Your task to perform on an android device: turn off improve location accuracy Image 0: 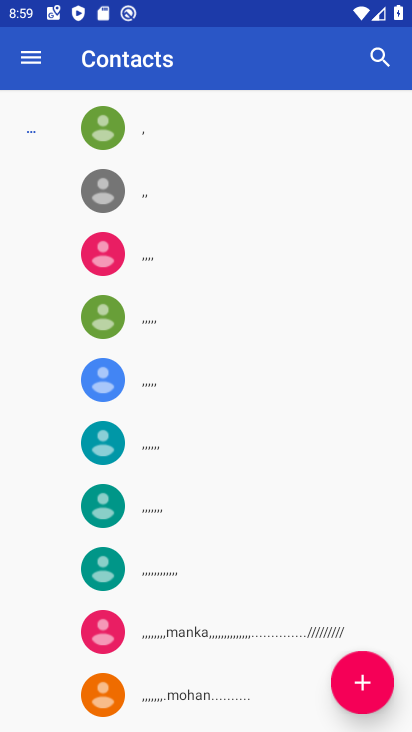
Step 0: press home button
Your task to perform on an android device: turn off improve location accuracy Image 1: 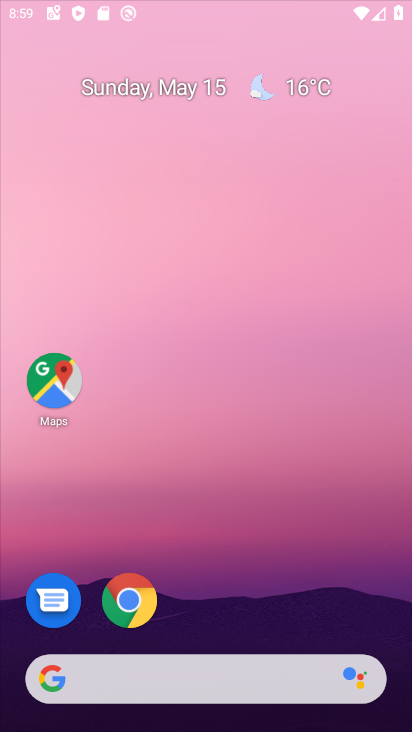
Step 1: drag from (241, 438) to (253, 49)
Your task to perform on an android device: turn off improve location accuracy Image 2: 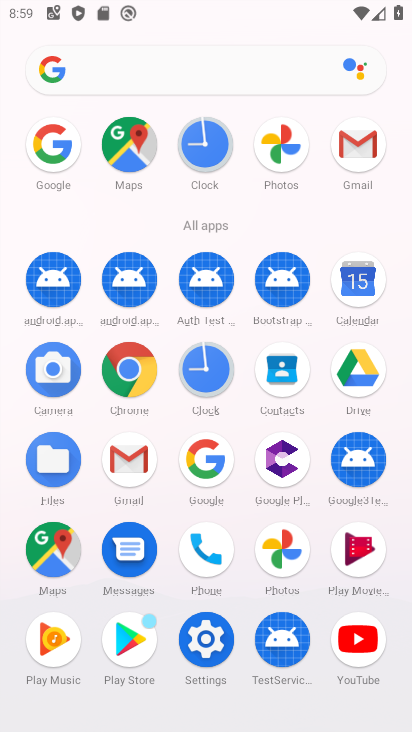
Step 2: click (200, 638)
Your task to perform on an android device: turn off improve location accuracy Image 3: 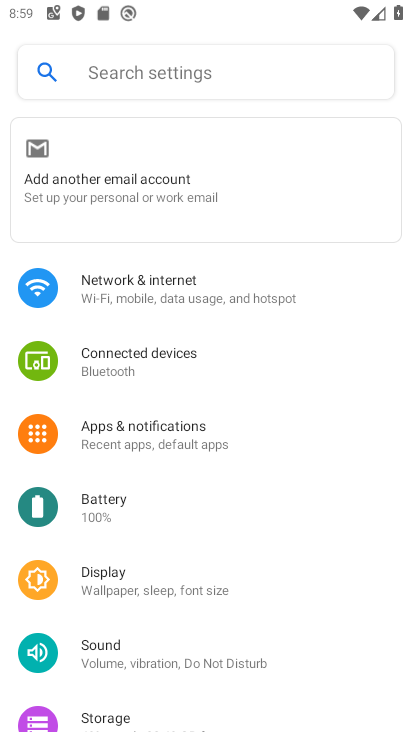
Step 3: drag from (78, 691) to (146, 501)
Your task to perform on an android device: turn off improve location accuracy Image 4: 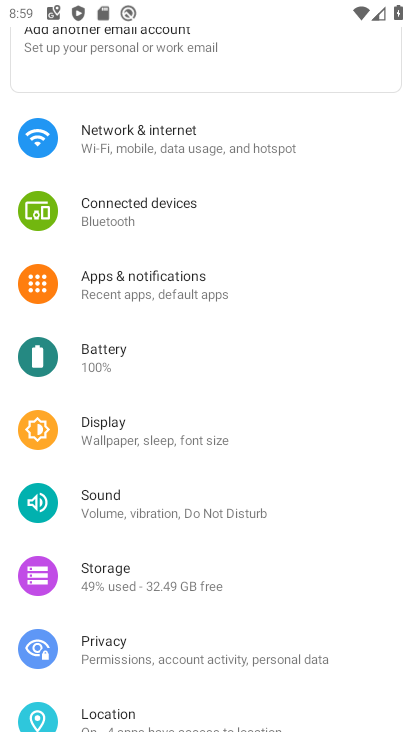
Step 4: click (103, 716)
Your task to perform on an android device: turn off improve location accuracy Image 5: 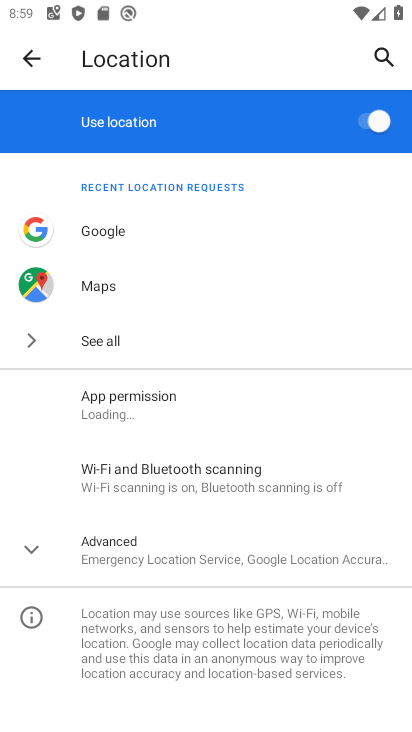
Step 5: click (126, 550)
Your task to perform on an android device: turn off improve location accuracy Image 6: 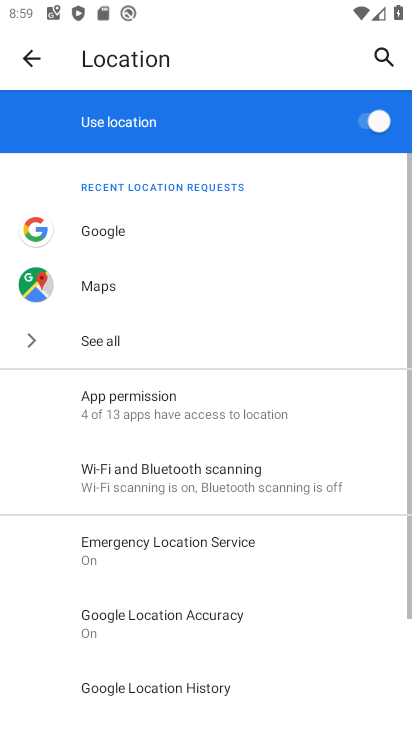
Step 6: drag from (238, 556) to (215, 359)
Your task to perform on an android device: turn off improve location accuracy Image 7: 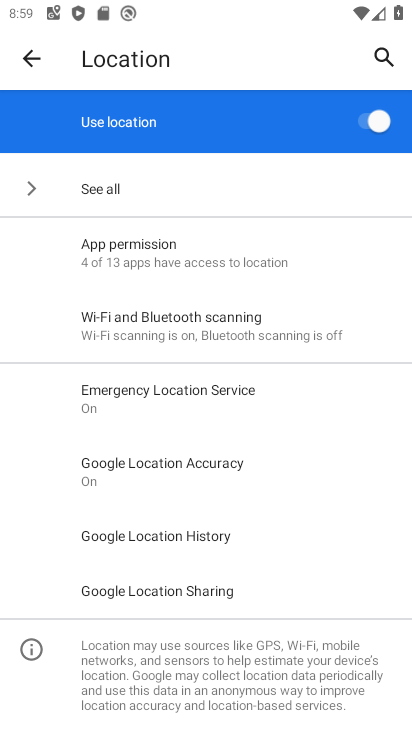
Step 7: click (139, 449)
Your task to perform on an android device: turn off improve location accuracy Image 8: 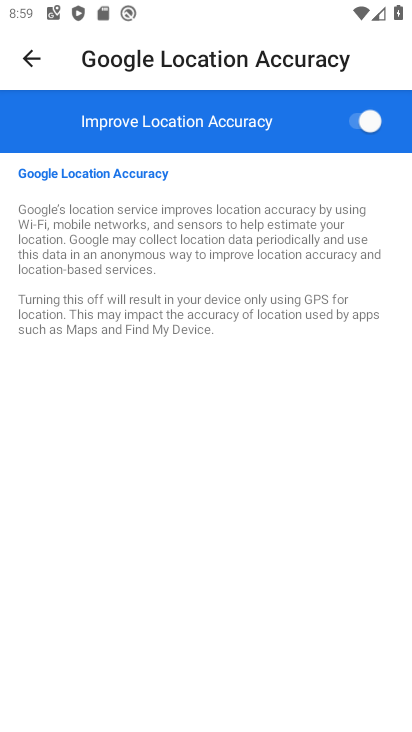
Step 8: click (378, 121)
Your task to perform on an android device: turn off improve location accuracy Image 9: 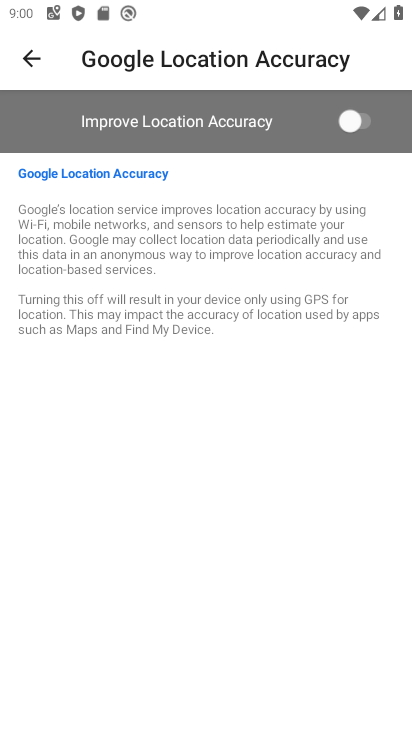
Step 9: task complete